Your task to perform on an android device: Open Chrome and go to settings Image 0: 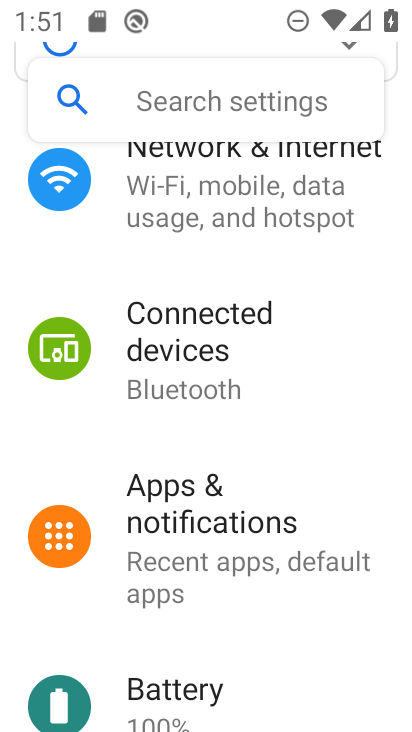
Step 0: press home button
Your task to perform on an android device: Open Chrome and go to settings Image 1: 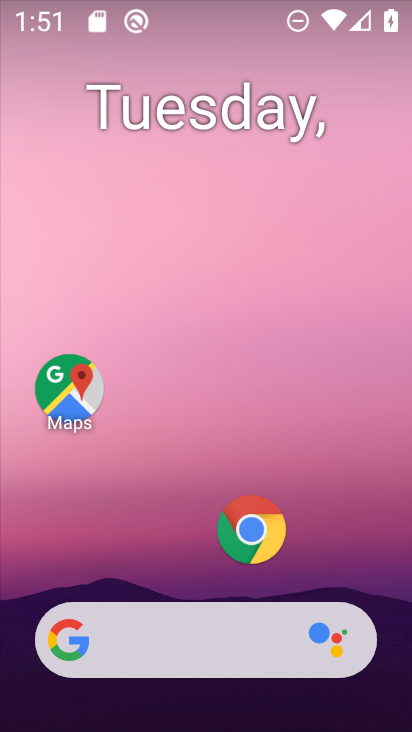
Step 1: drag from (193, 695) to (258, 250)
Your task to perform on an android device: Open Chrome and go to settings Image 2: 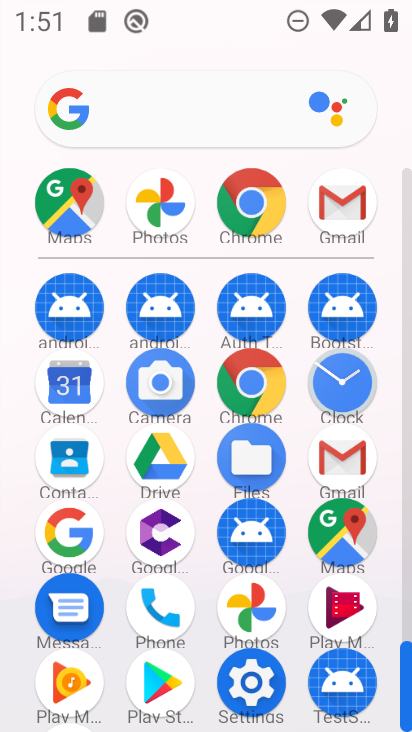
Step 2: click (255, 202)
Your task to perform on an android device: Open Chrome and go to settings Image 3: 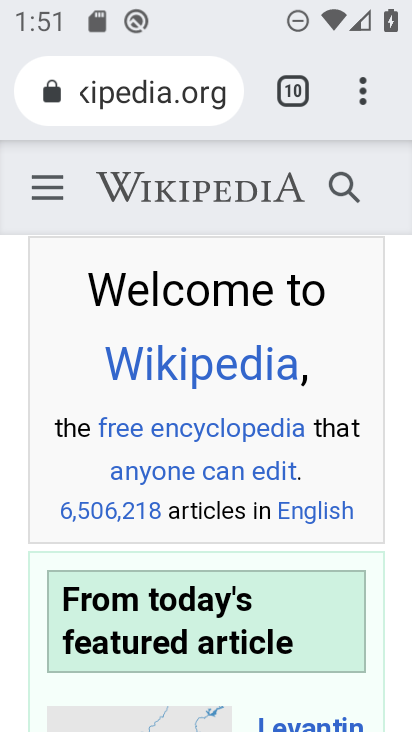
Step 3: click (354, 112)
Your task to perform on an android device: Open Chrome and go to settings Image 4: 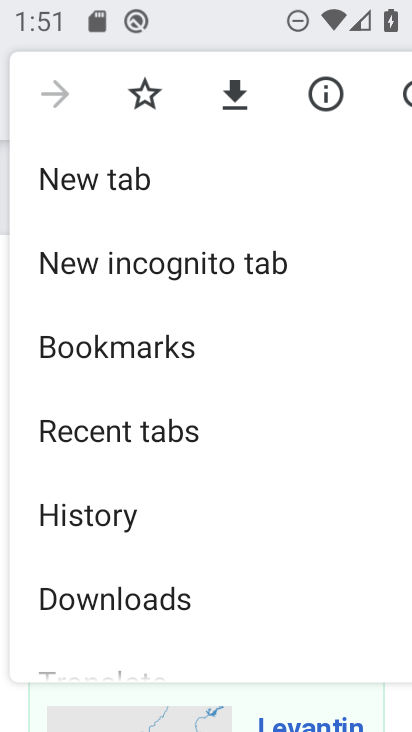
Step 4: drag from (228, 512) to (231, 322)
Your task to perform on an android device: Open Chrome and go to settings Image 5: 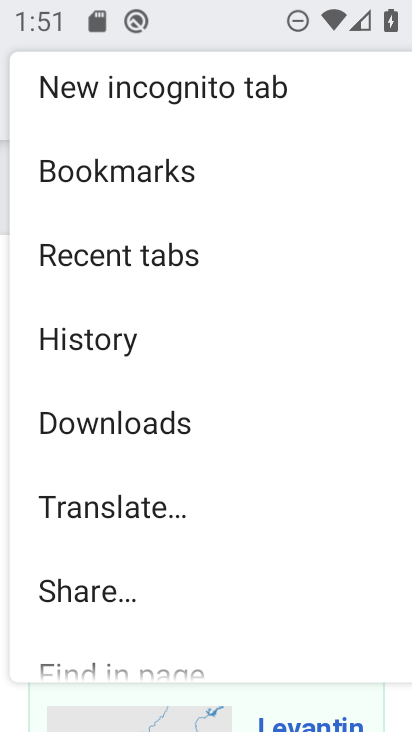
Step 5: drag from (144, 567) to (172, 296)
Your task to perform on an android device: Open Chrome and go to settings Image 6: 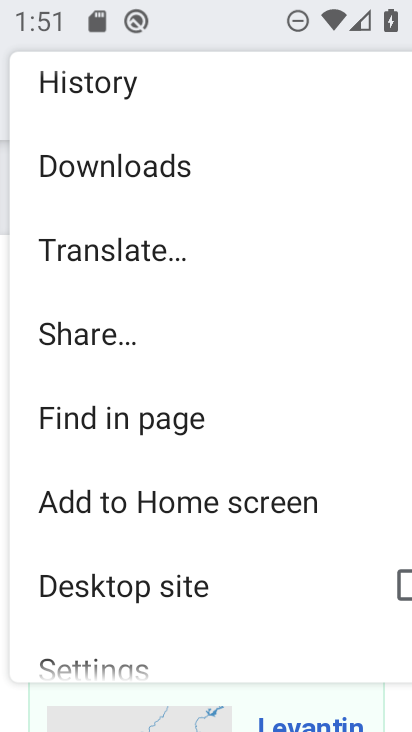
Step 6: click (68, 660)
Your task to perform on an android device: Open Chrome and go to settings Image 7: 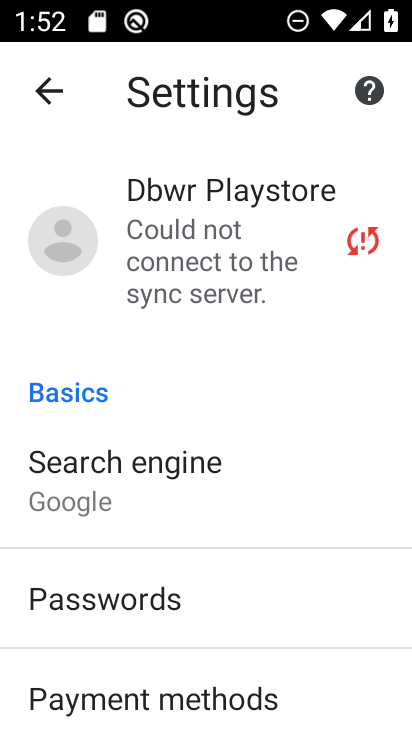
Step 7: task complete